Your task to perform on an android device: add a label to a message in the gmail app Image 0: 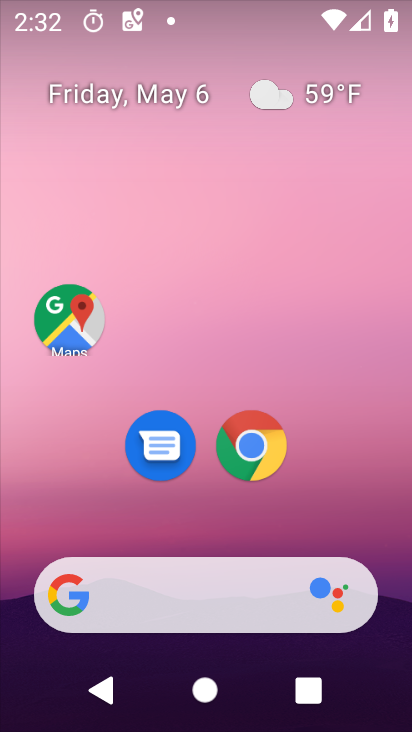
Step 0: click (147, 2)
Your task to perform on an android device: add a label to a message in the gmail app Image 1: 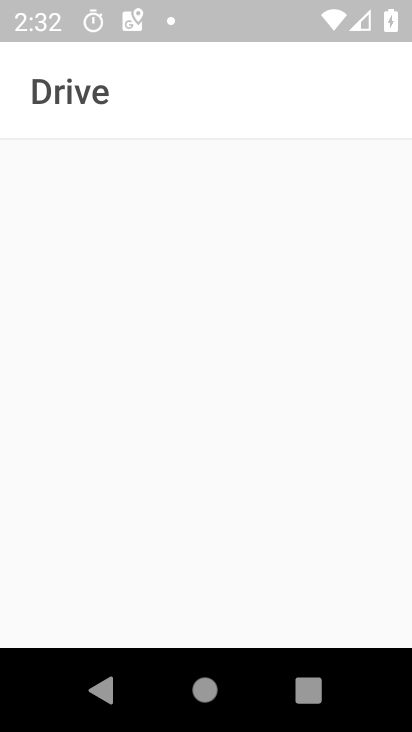
Step 1: drag from (362, 457) to (71, 5)
Your task to perform on an android device: add a label to a message in the gmail app Image 2: 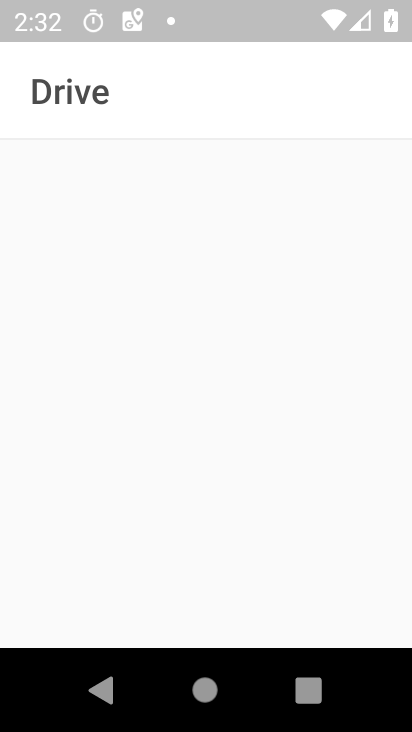
Step 2: press home button
Your task to perform on an android device: add a label to a message in the gmail app Image 3: 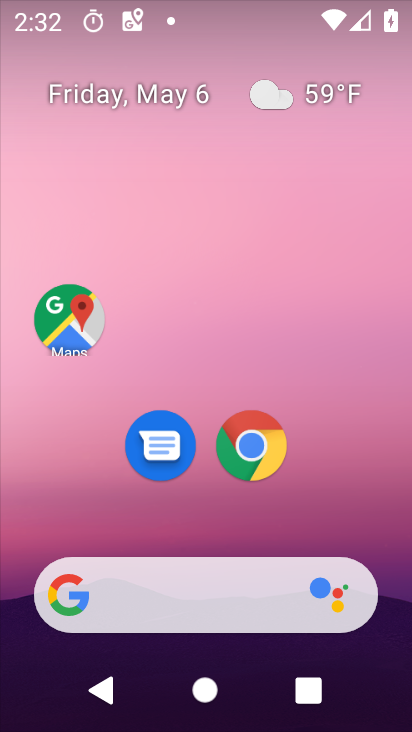
Step 3: drag from (359, 671) to (222, 184)
Your task to perform on an android device: add a label to a message in the gmail app Image 4: 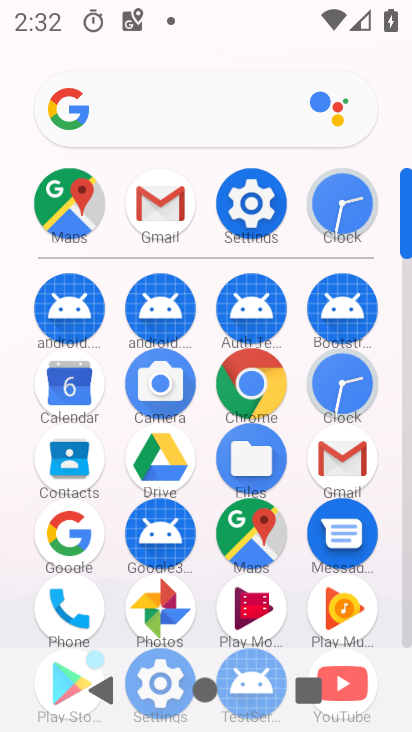
Step 4: click (342, 460)
Your task to perform on an android device: add a label to a message in the gmail app Image 5: 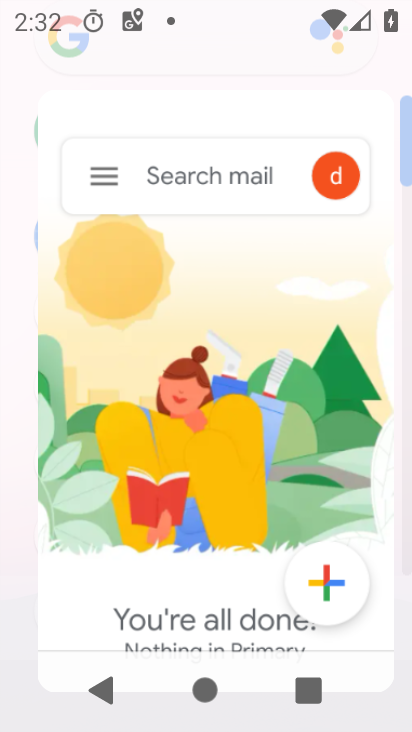
Step 5: click (329, 468)
Your task to perform on an android device: add a label to a message in the gmail app Image 6: 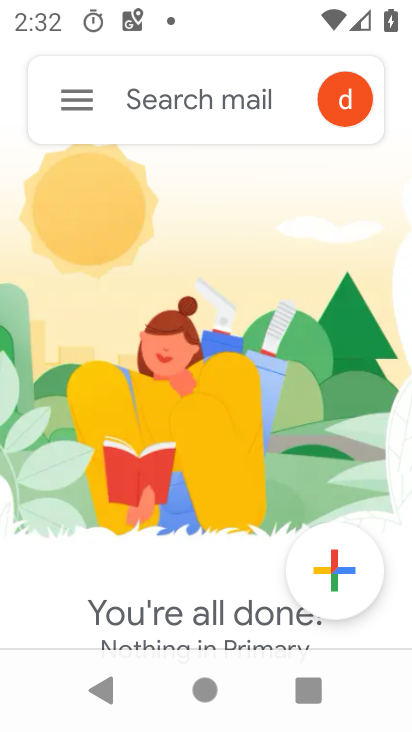
Step 6: click (83, 102)
Your task to perform on an android device: add a label to a message in the gmail app Image 7: 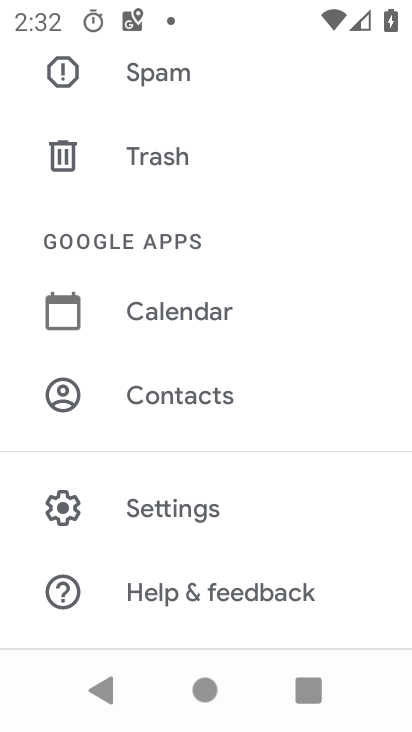
Step 7: drag from (194, 226) to (318, 564)
Your task to perform on an android device: add a label to a message in the gmail app Image 8: 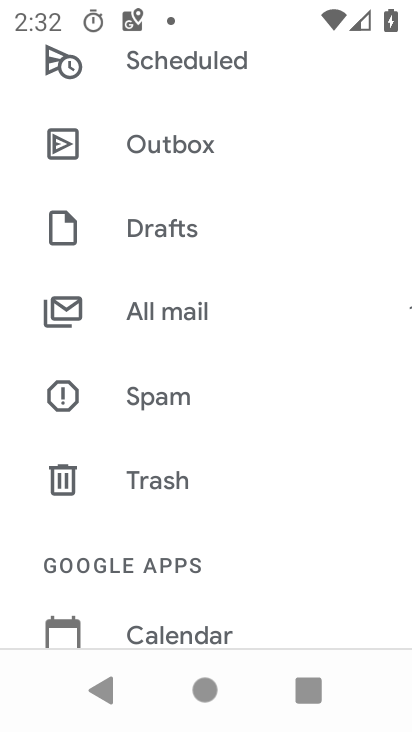
Step 8: click (187, 313)
Your task to perform on an android device: add a label to a message in the gmail app Image 9: 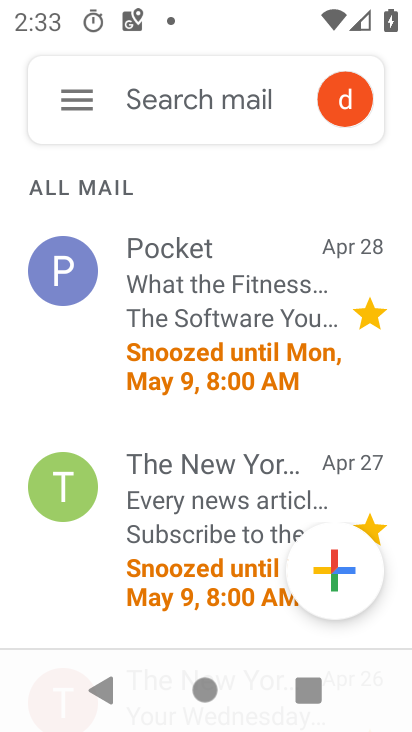
Step 9: click (235, 347)
Your task to perform on an android device: add a label to a message in the gmail app Image 10: 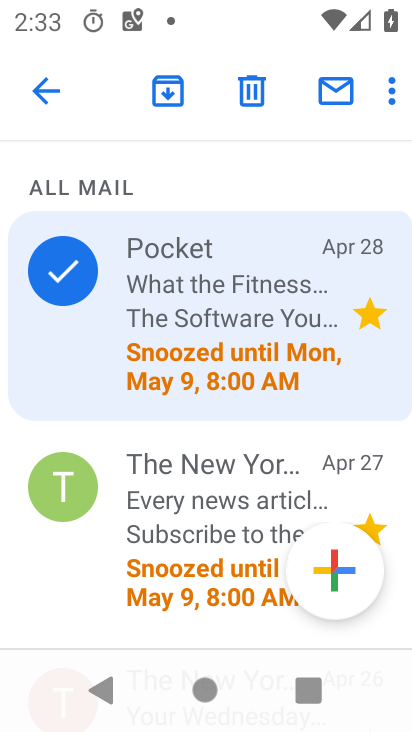
Step 10: click (259, 295)
Your task to perform on an android device: add a label to a message in the gmail app Image 11: 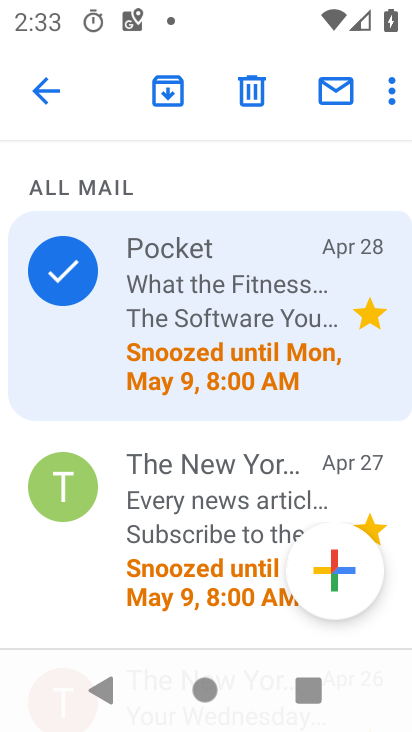
Step 11: click (393, 89)
Your task to perform on an android device: add a label to a message in the gmail app Image 12: 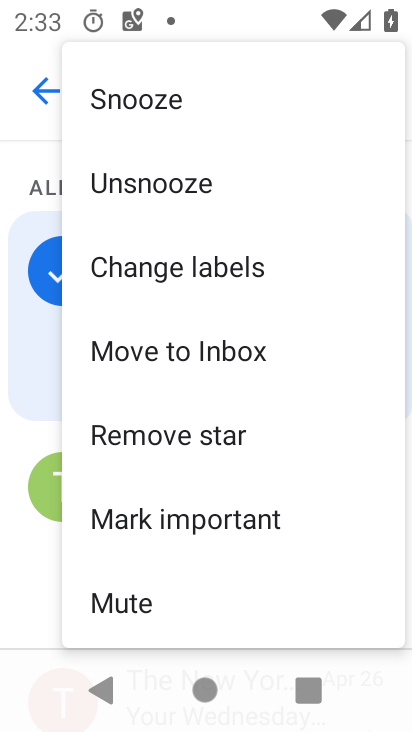
Step 12: click (184, 270)
Your task to perform on an android device: add a label to a message in the gmail app Image 13: 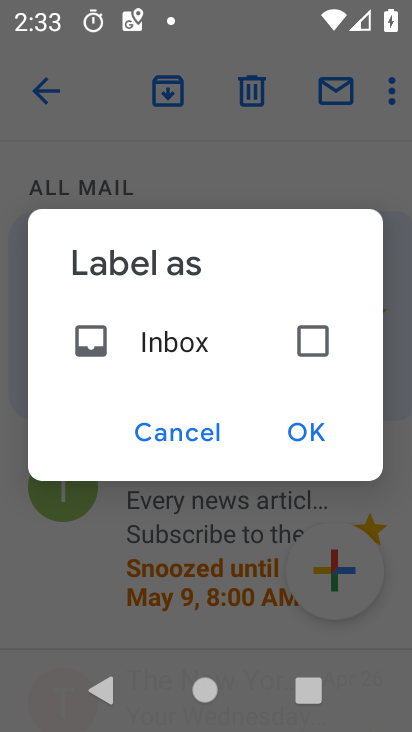
Step 13: click (296, 437)
Your task to perform on an android device: add a label to a message in the gmail app Image 14: 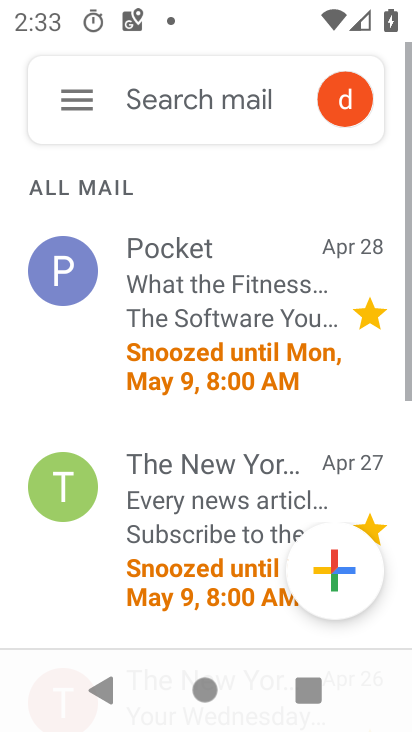
Step 14: click (99, 338)
Your task to perform on an android device: add a label to a message in the gmail app Image 15: 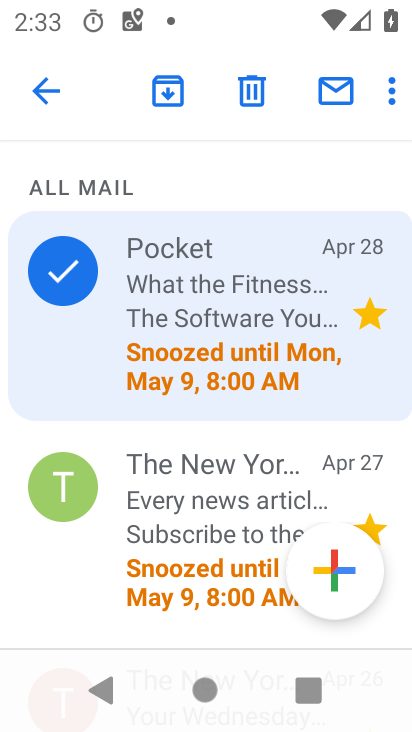
Step 15: click (381, 96)
Your task to perform on an android device: add a label to a message in the gmail app Image 16: 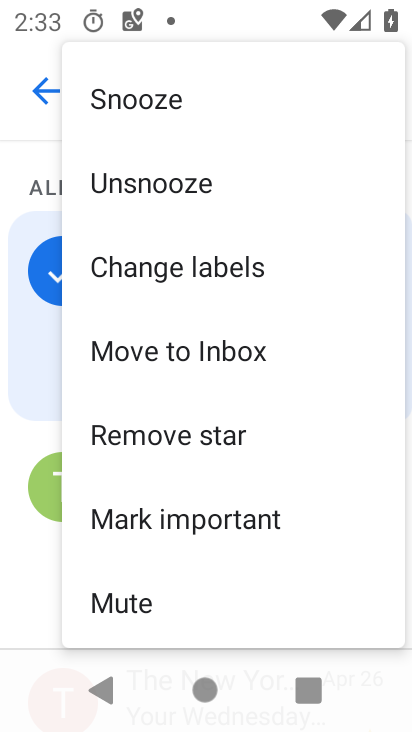
Step 16: click (145, 183)
Your task to perform on an android device: add a label to a message in the gmail app Image 17: 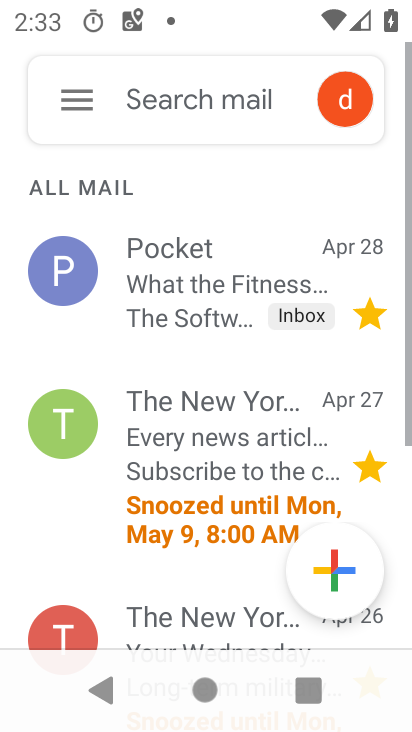
Step 17: task complete